Your task to perform on an android device: Open the calendar and show me this week's events Image 0: 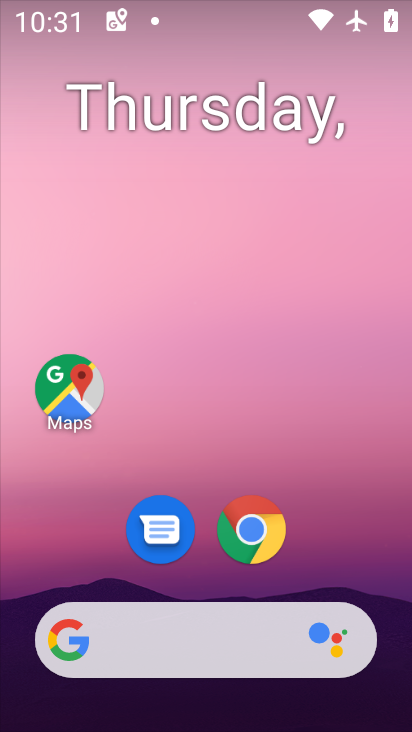
Step 0: drag from (340, 579) to (296, 57)
Your task to perform on an android device: Open the calendar and show me this week's events Image 1: 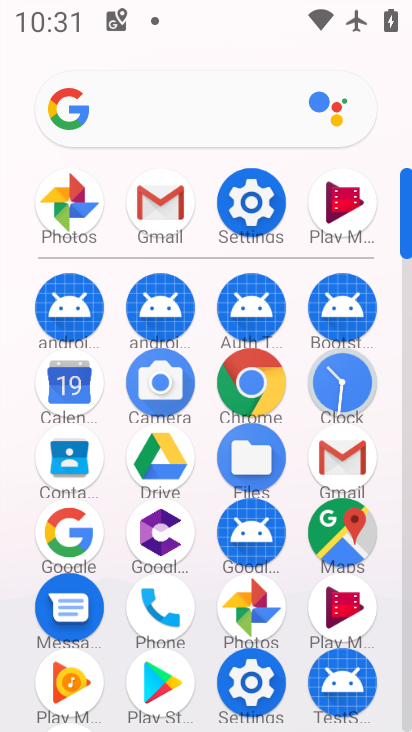
Step 1: click (72, 388)
Your task to perform on an android device: Open the calendar and show me this week's events Image 2: 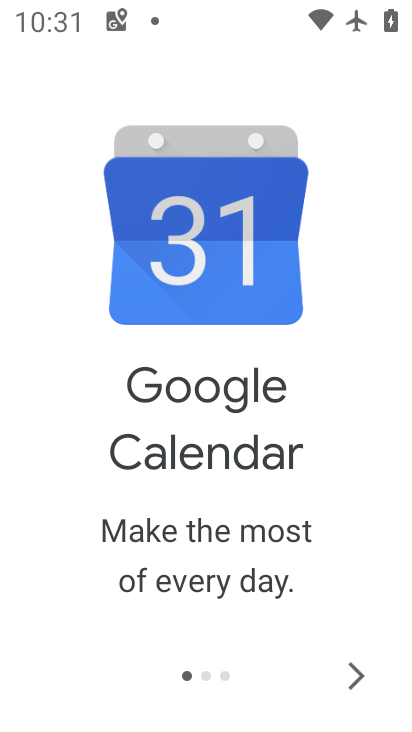
Step 2: click (336, 670)
Your task to perform on an android device: Open the calendar and show me this week's events Image 3: 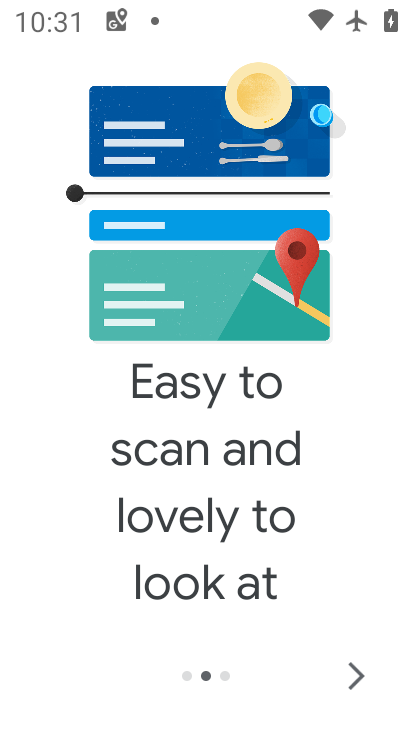
Step 3: click (355, 665)
Your task to perform on an android device: Open the calendar and show me this week's events Image 4: 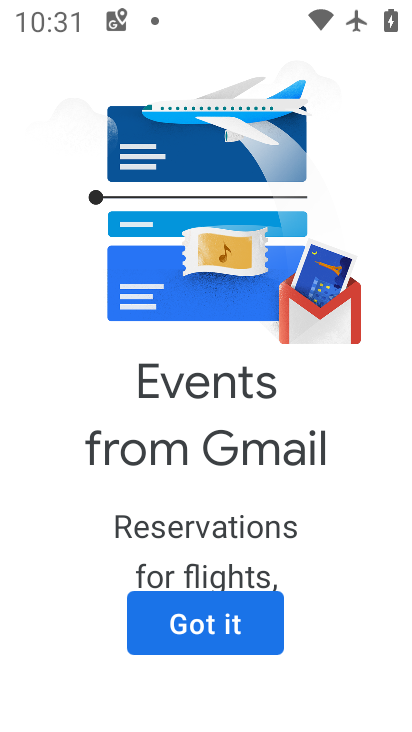
Step 4: click (201, 620)
Your task to perform on an android device: Open the calendar and show me this week's events Image 5: 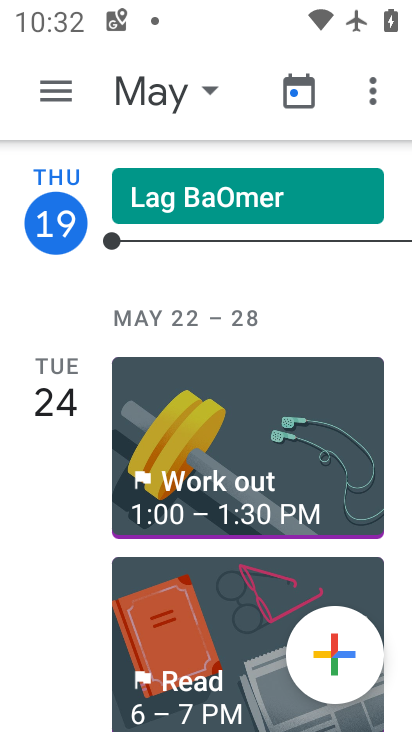
Step 5: click (124, 75)
Your task to perform on an android device: Open the calendar and show me this week's events Image 6: 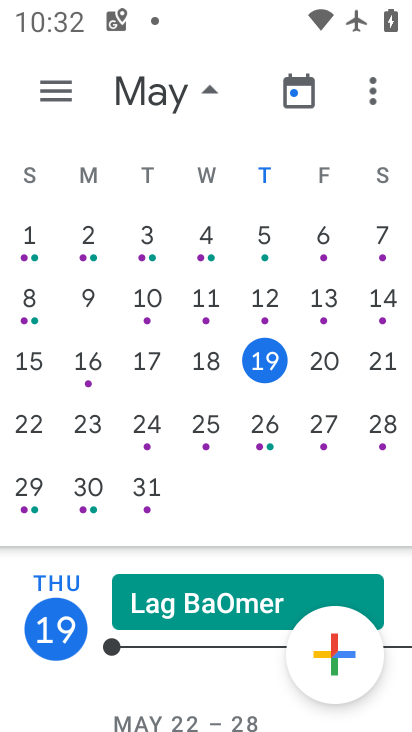
Step 6: click (275, 363)
Your task to perform on an android device: Open the calendar and show me this week's events Image 7: 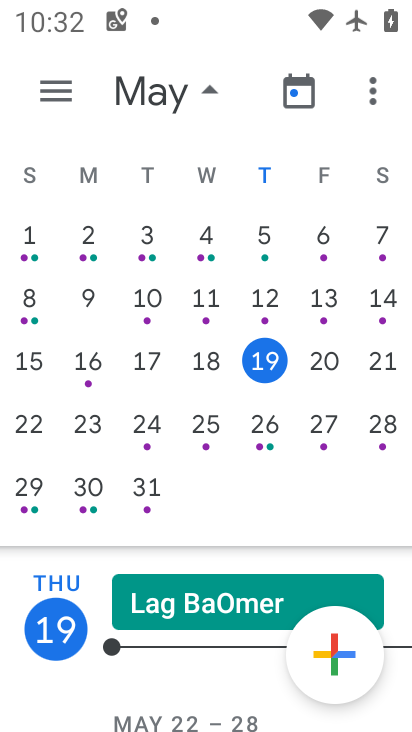
Step 7: task complete